Your task to perform on an android device: Open Youtube and go to "Your channel" Image 0: 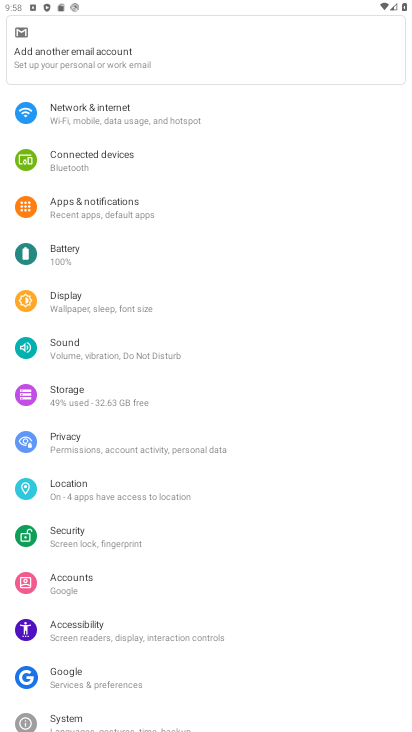
Step 0: press home button
Your task to perform on an android device: Open Youtube and go to "Your channel" Image 1: 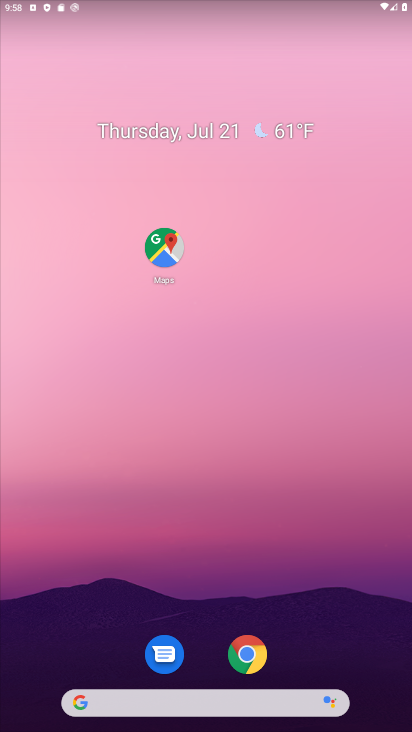
Step 1: drag from (45, 657) to (208, 106)
Your task to perform on an android device: Open Youtube and go to "Your channel" Image 2: 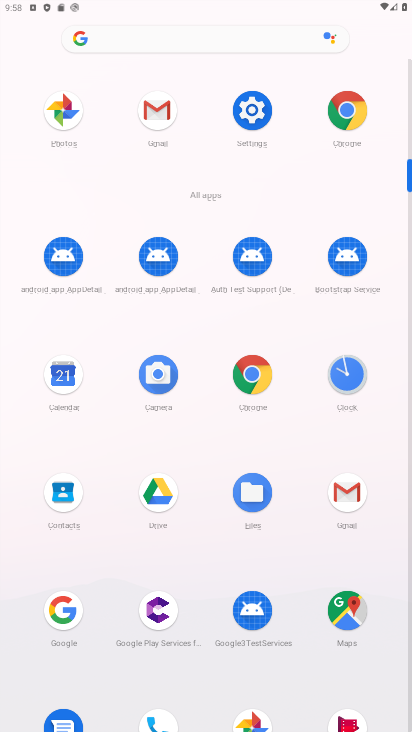
Step 2: drag from (175, 694) to (294, 122)
Your task to perform on an android device: Open Youtube and go to "Your channel" Image 3: 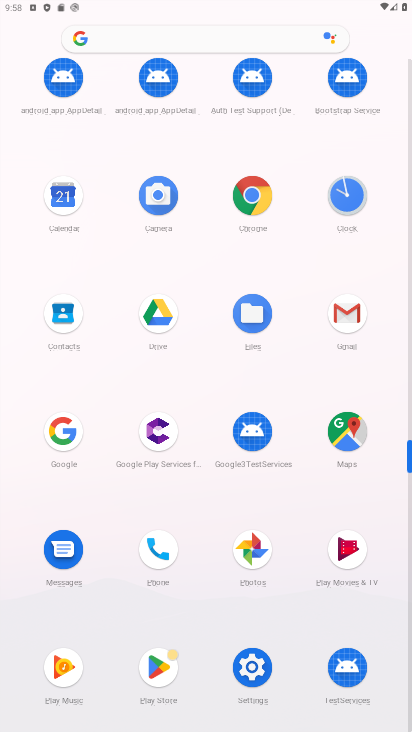
Step 3: drag from (213, 567) to (275, 243)
Your task to perform on an android device: Open Youtube and go to "Your channel" Image 4: 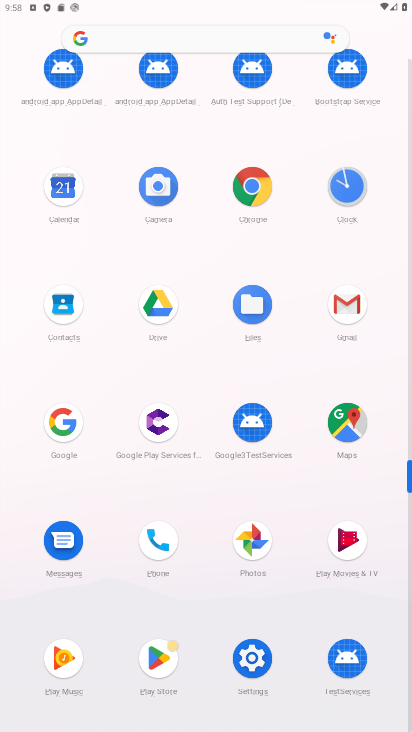
Step 4: drag from (239, 343) to (249, 250)
Your task to perform on an android device: Open Youtube and go to "Your channel" Image 5: 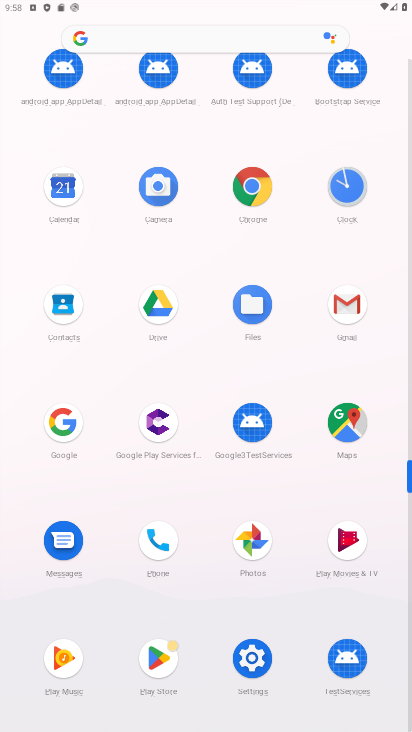
Step 5: drag from (119, 672) to (196, 173)
Your task to perform on an android device: Open Youtube and go to "Your channel" Image 6: 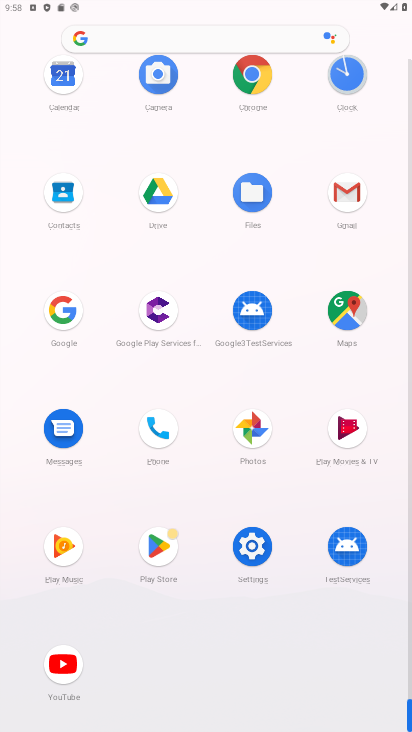
Step 6: click (53, 674)
Your task to perform on an android device: Open Youtube and go to "Your channel" Image 7: 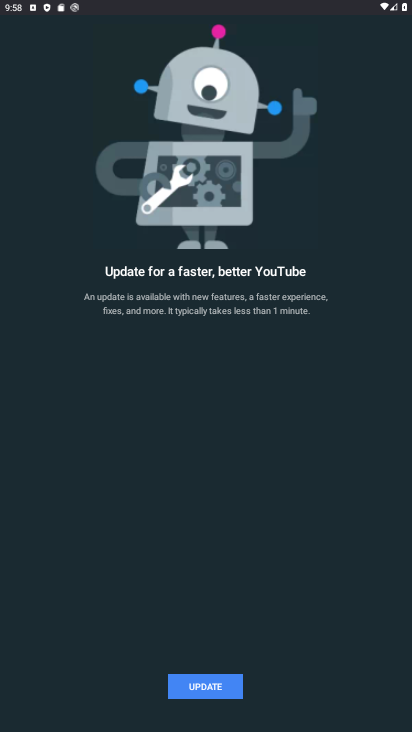
Step 7: click (185, 686)
Your task to perform on an android device: Open Youtube and go to "Your channel" Image 8: 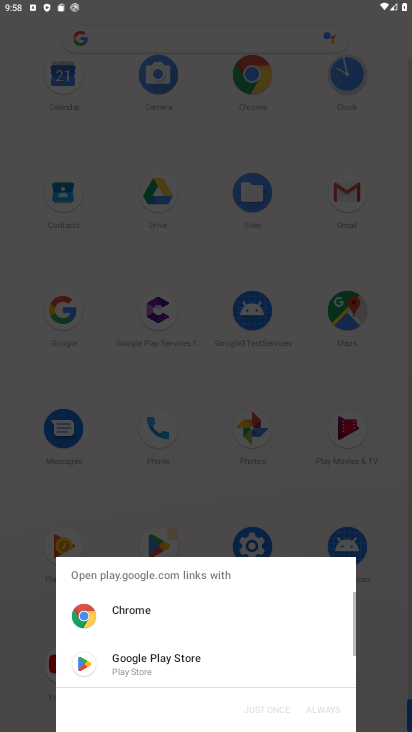
Step 8: click (125, 672)
Your task to perform on an android device: Open Youtube and go to "Your channel" Image 9: 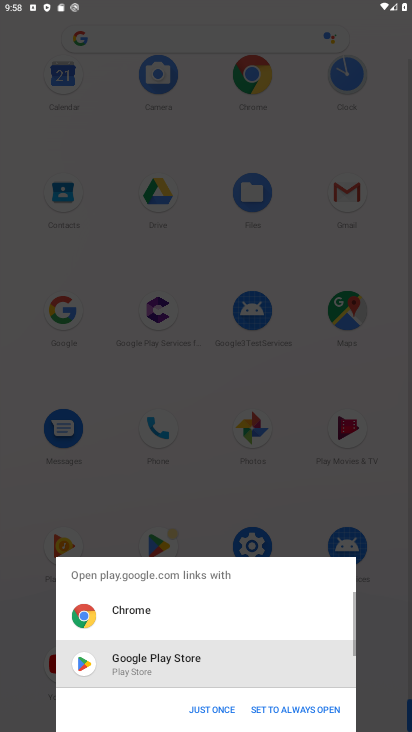
Step 9: click (234, 713)
Your task to perform on an android device: Open Youtube and go to "Your channel" Image 10: 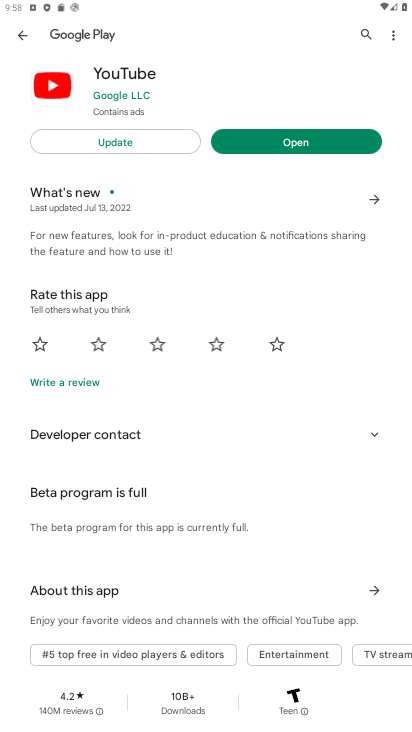
Step 10: click (316, 130)
Your task to perform on an android device: Open Youtube and go to "Your channel" Image 11: 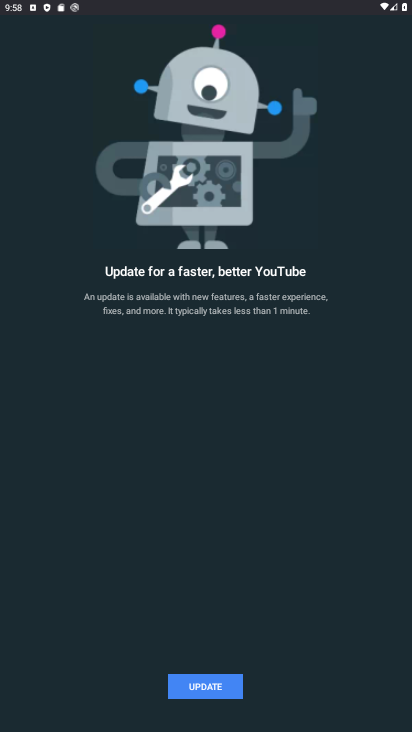
Step 11: task complete